Your task to perform on an android device: check battery use Image 0: 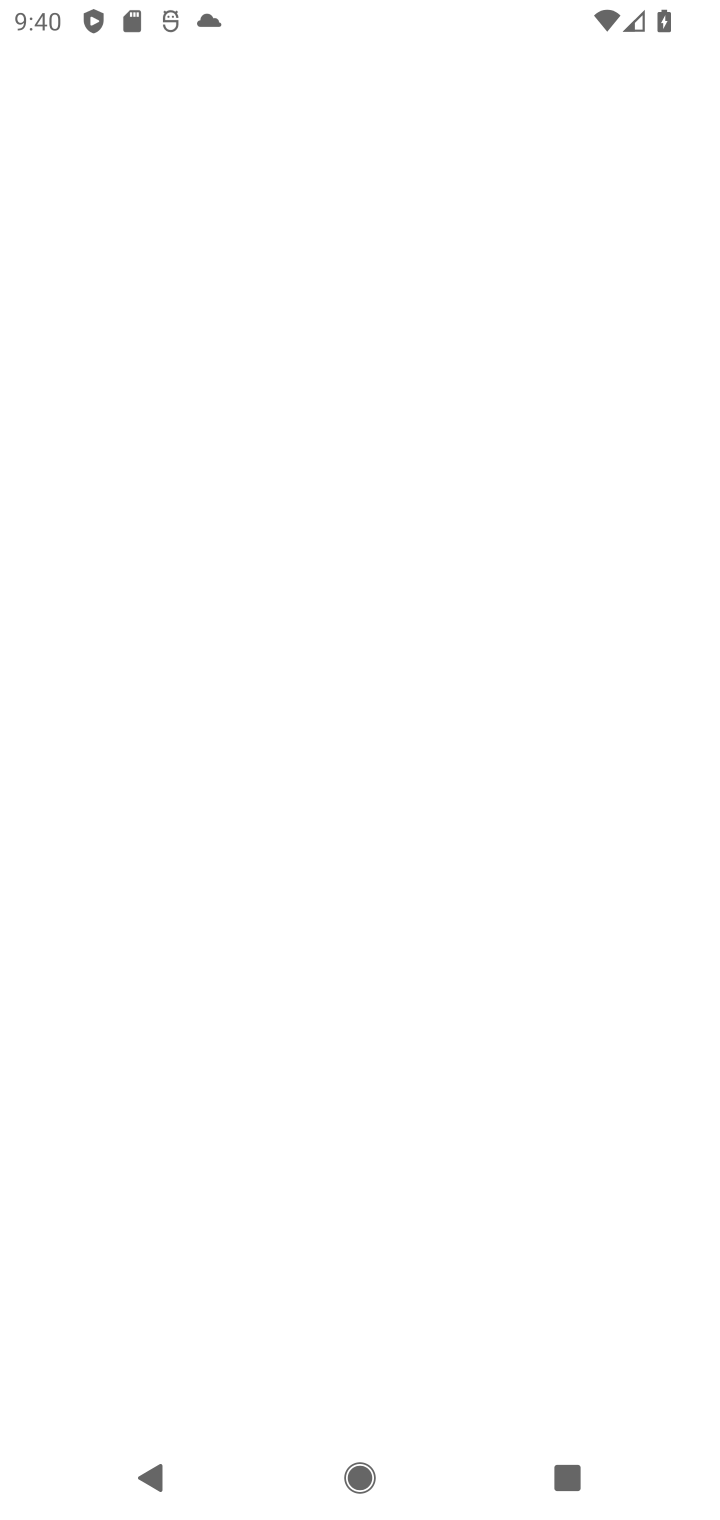
Step 0: press home button
Your task to perform on an android device: check battery use Image 1: 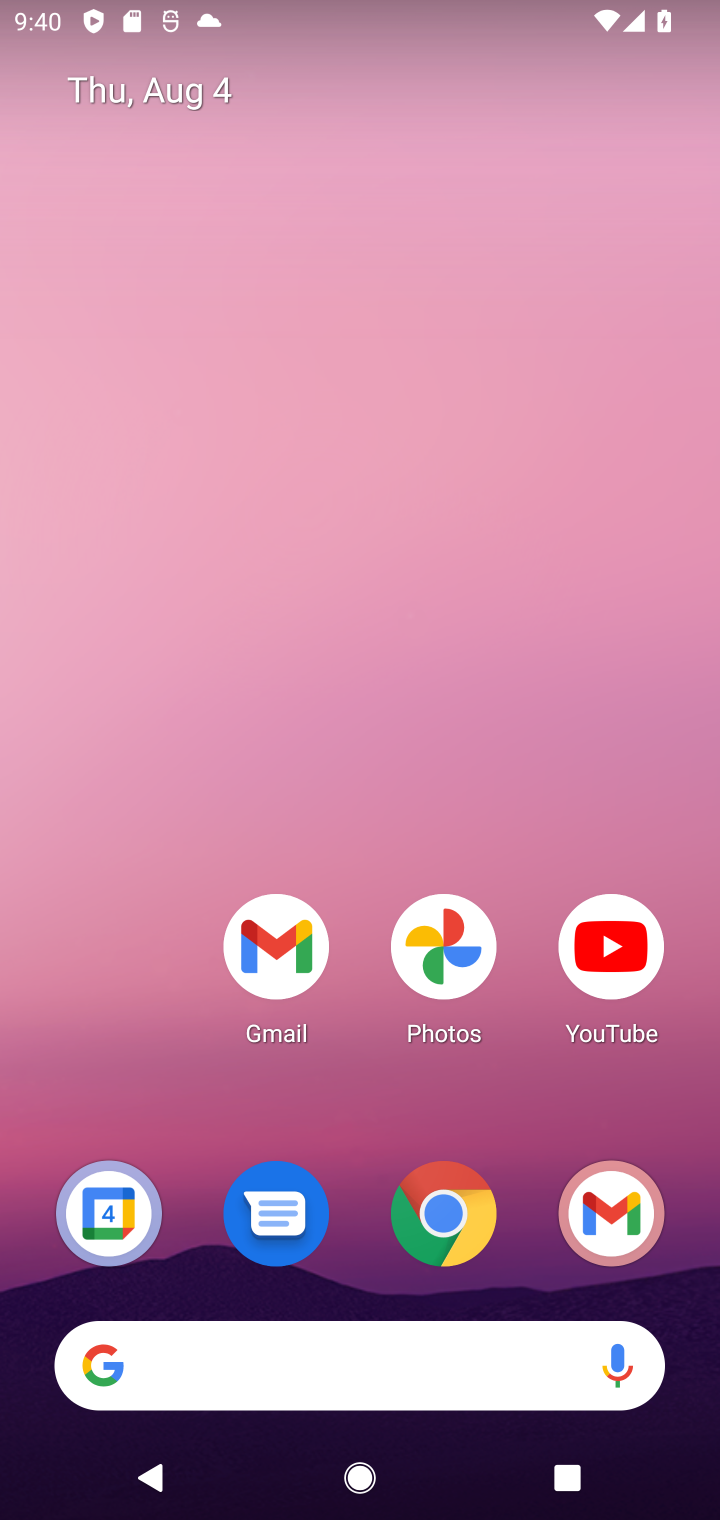
Step 1: press home button
Your task to perform on an android device: check battery use Image 2: 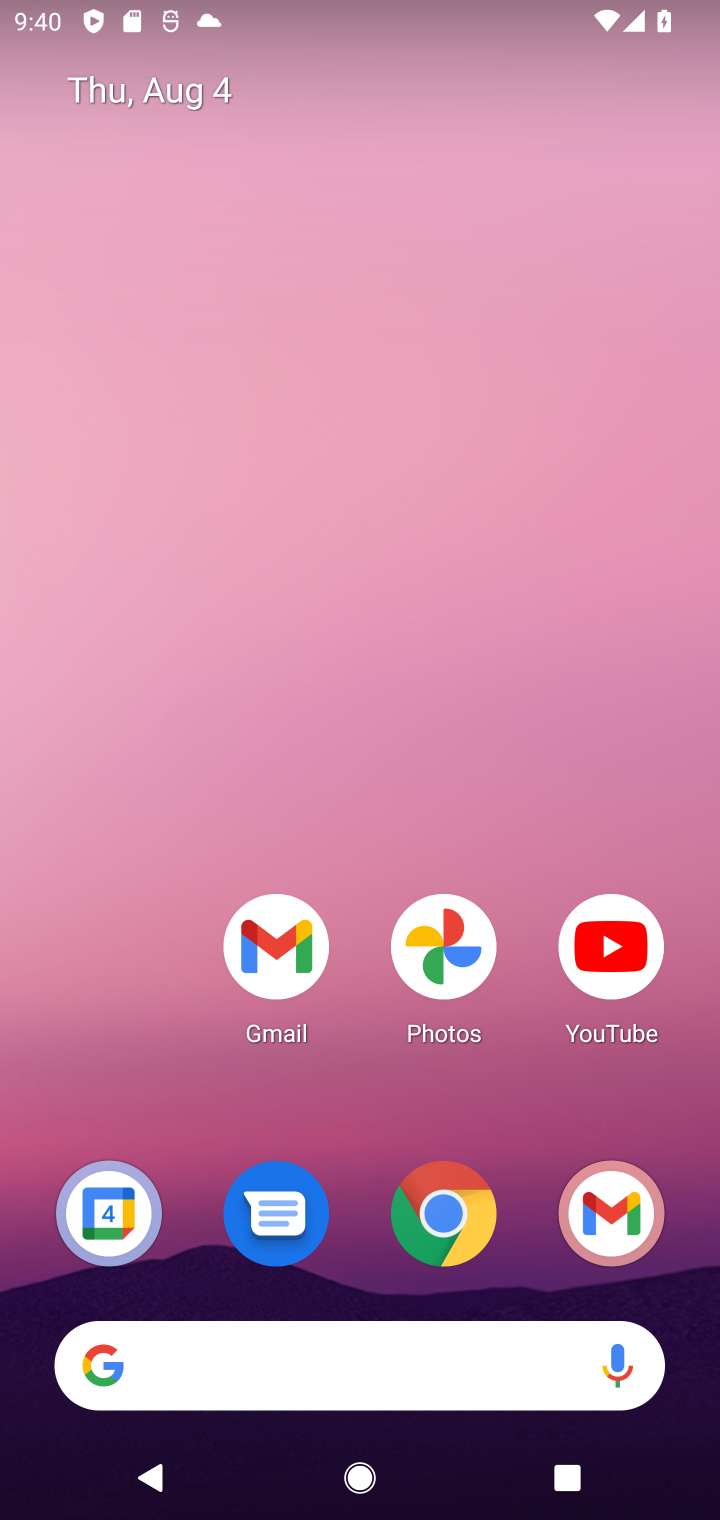
Step 2: drag from (368, 1264) to (421, 327)
Your task to perform on an android device: check battery use Image 3: 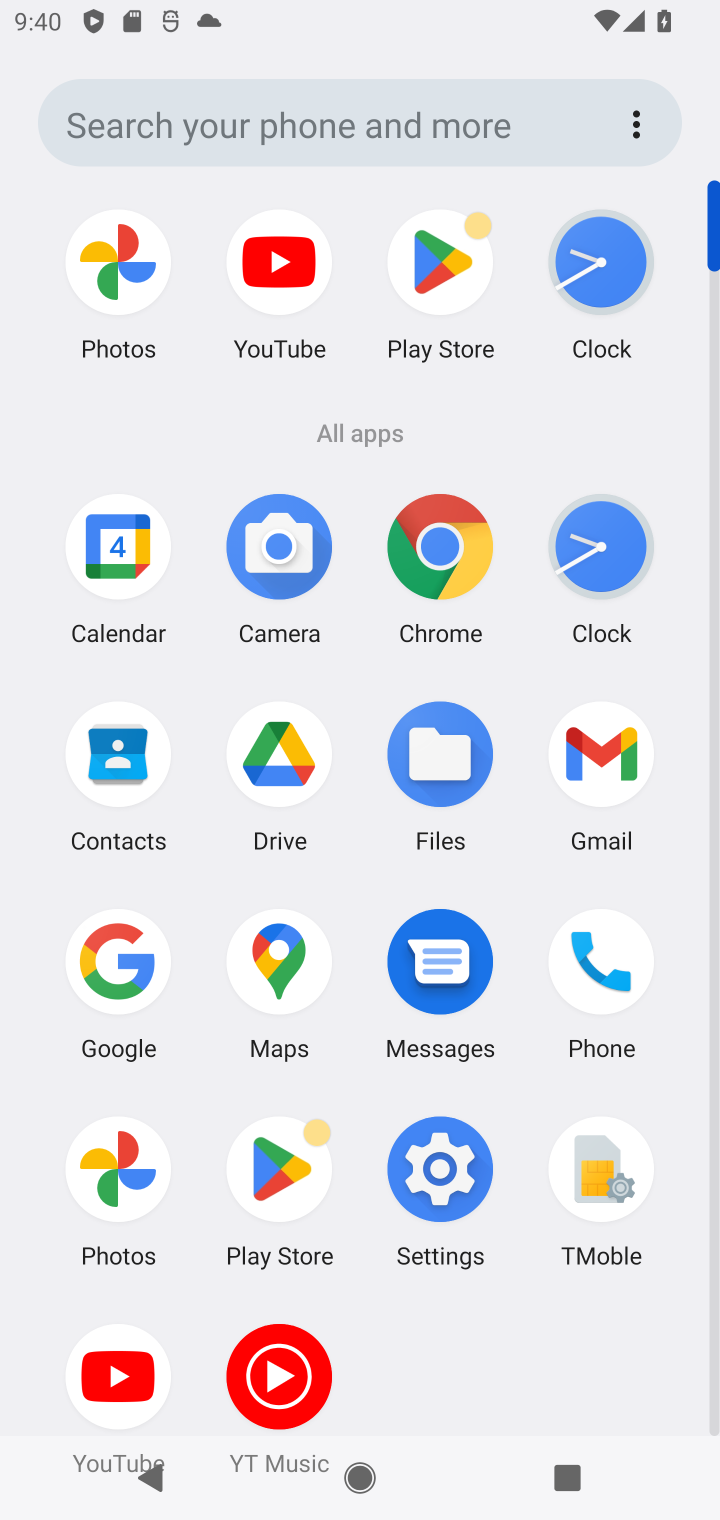
Step 3: click (439, 1156)
Your task to perform on an android device: check battery use Image 4: 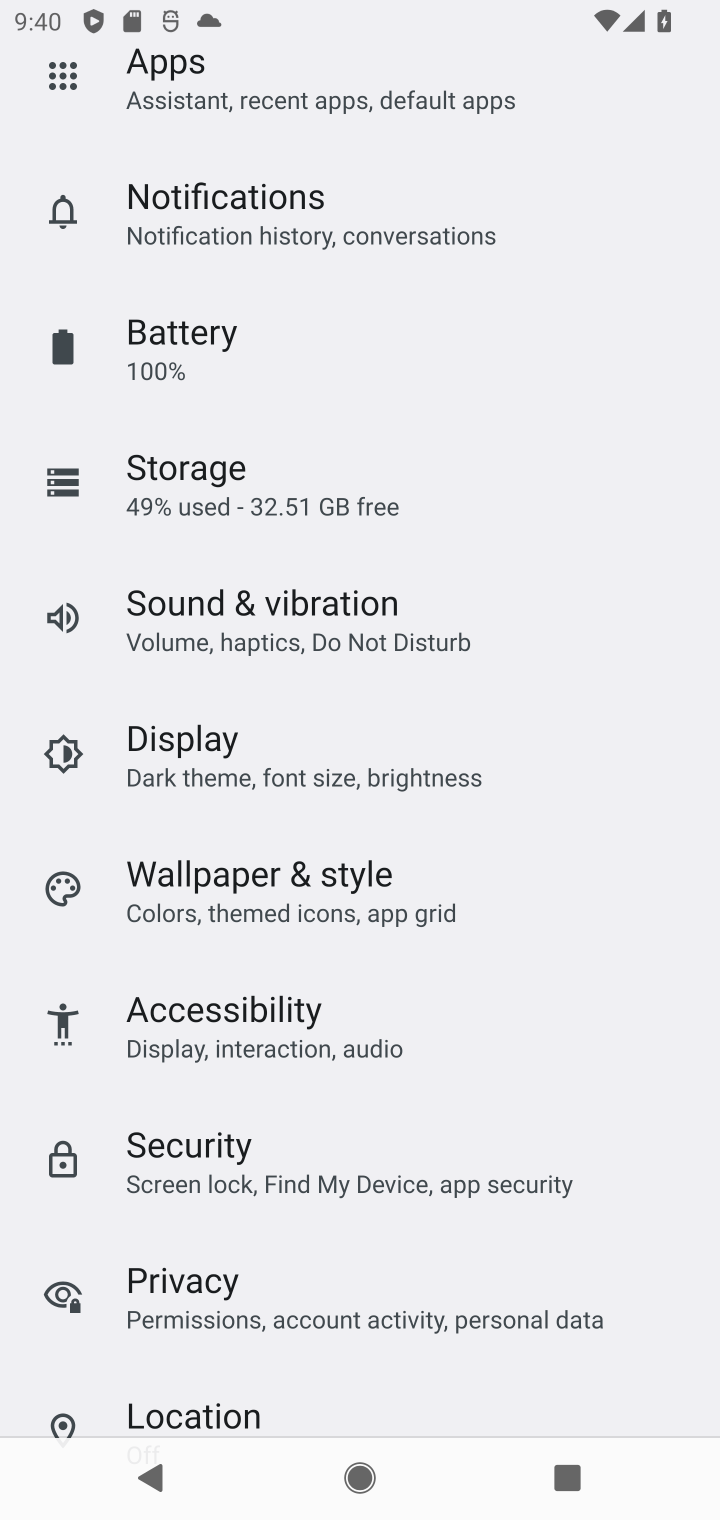
Step 4: click (238, 342)
Your task to perform on an android device: check battery use Image 5: 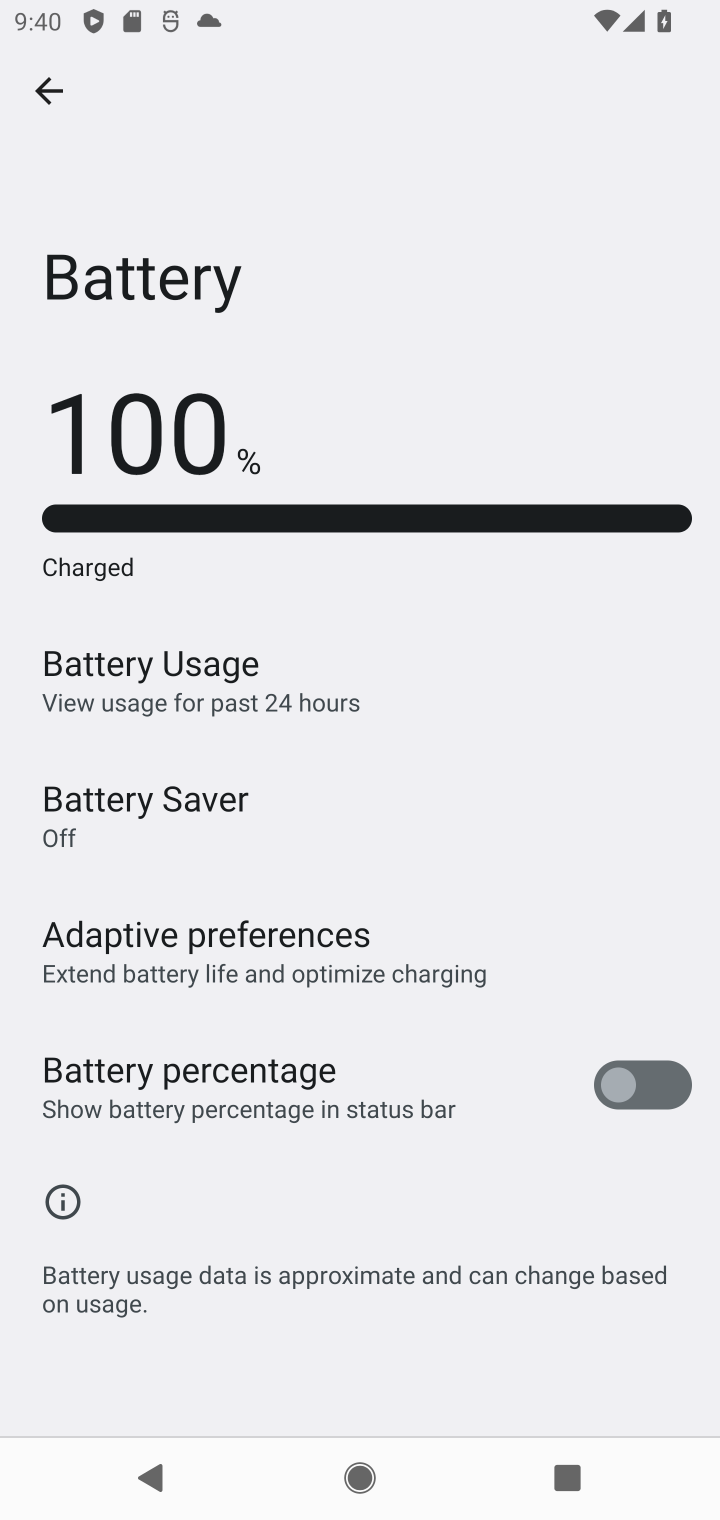
Step 5: click (254, 700)
Your task to perform on an android device: check battery use Image 6: 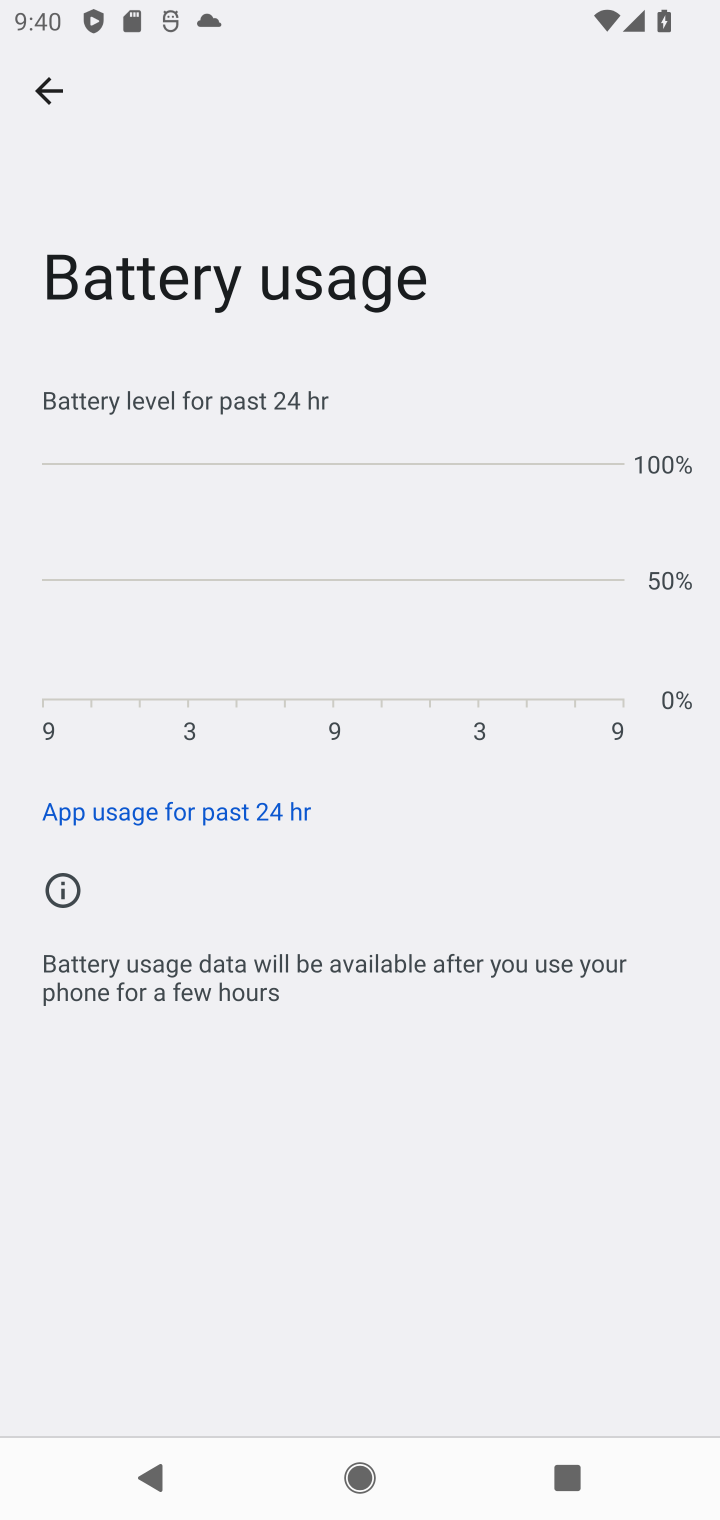
Step 6: task complete